Your task to perform on an android device: turn off picture-in-picture Image 0: 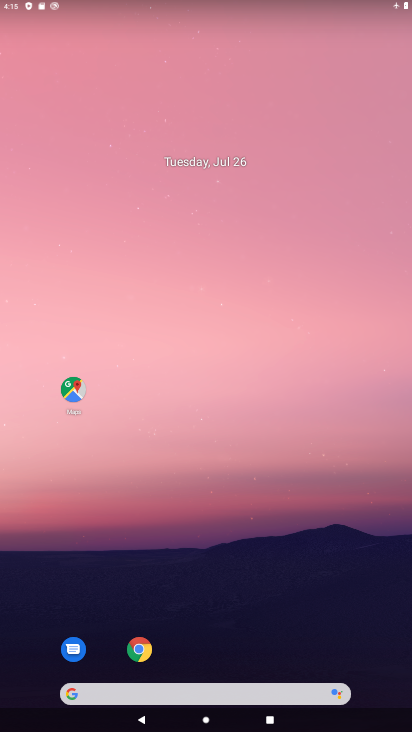
Step 0: click (139, 649)
Your task to perform on an android device: turn off picture-in-picture Image 1: 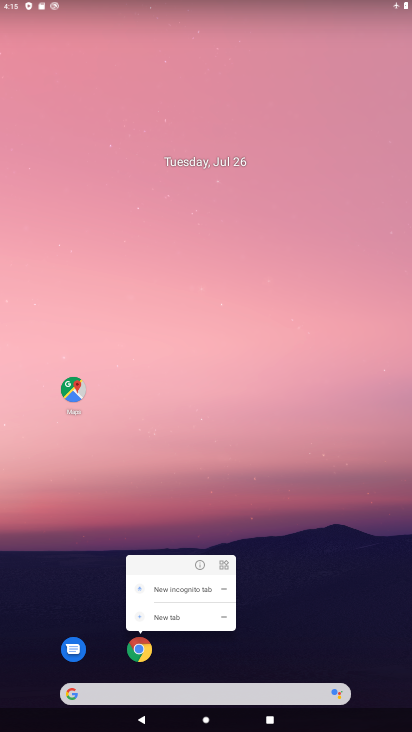
Step 1: click (203, 566)
Your task to perform on an android device: turn off picture-in-picture Image 2: 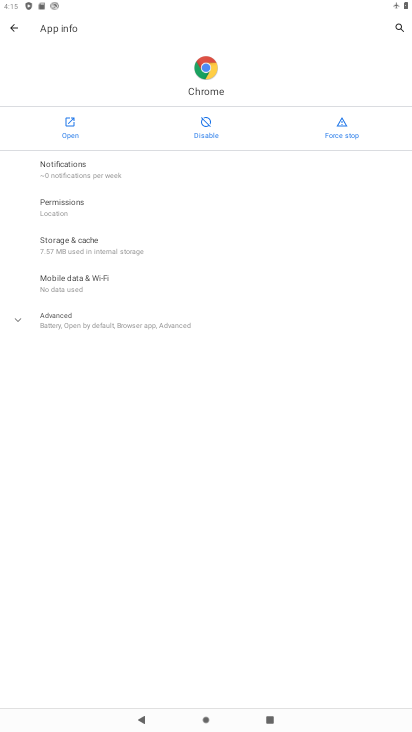
Step 2: click (133, 322)
Your task to perform on an android device: turn off picture-in-picture Image 3: 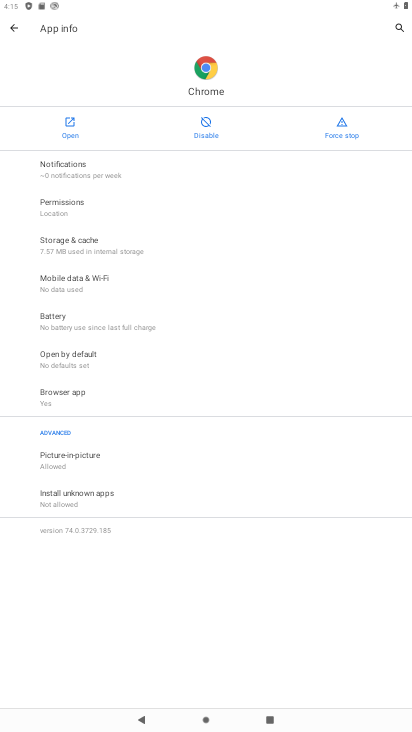
Step 3: click (89, 457)
Your task to perform on an android device: turn off picture-in-picture Image 4: 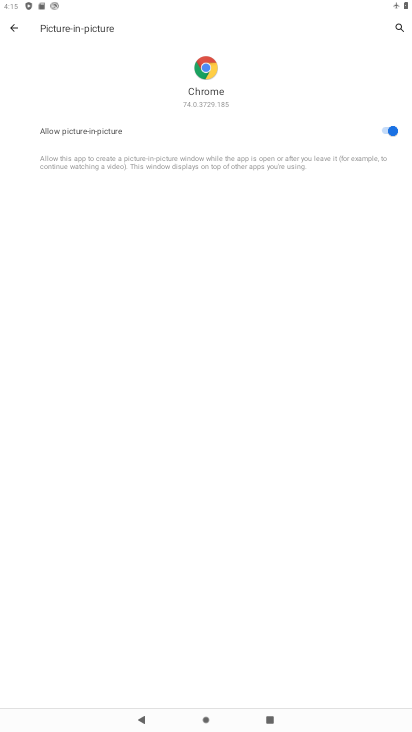
Step 4: click (385, 127)
Your task to perform on an android device: turn off picture-in-picture Image 5: 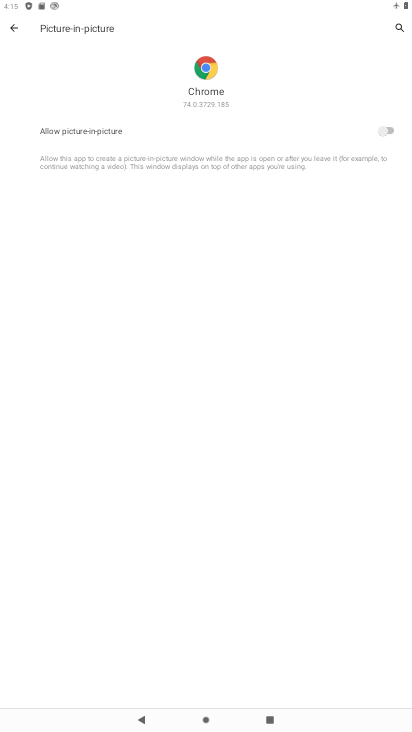
Step 5: task complete